Your task to perform on an android device: check out phone information Image 0: 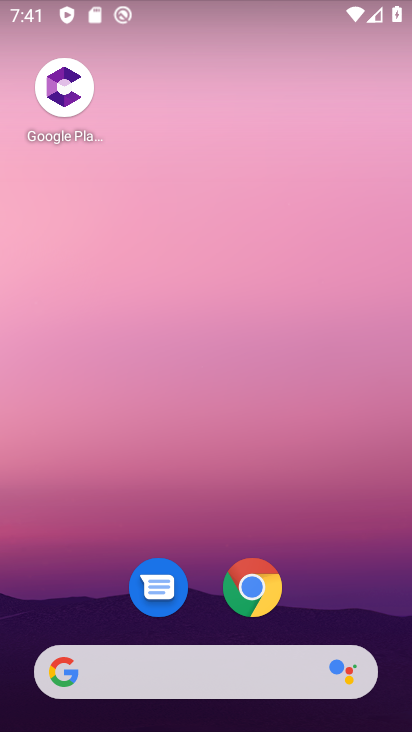
Step 0: drag from (400, 587) to (379, 111)
Your task to perform on an android device: check out phone information Image 1: 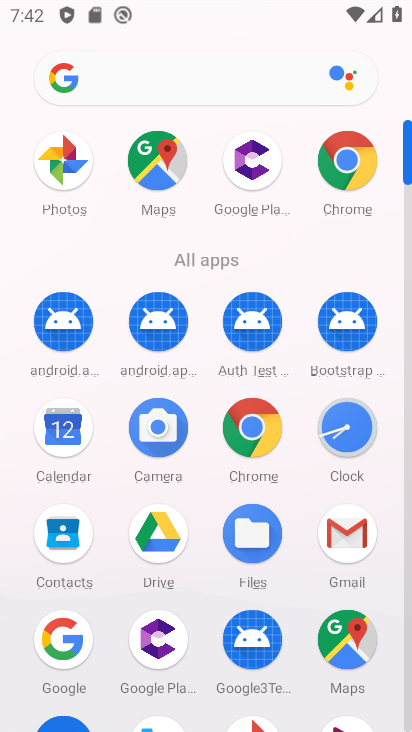
Step 1: drag from (184, 610) to (236, 209)
Your task to perform on an android device: check out phone information Image 2: 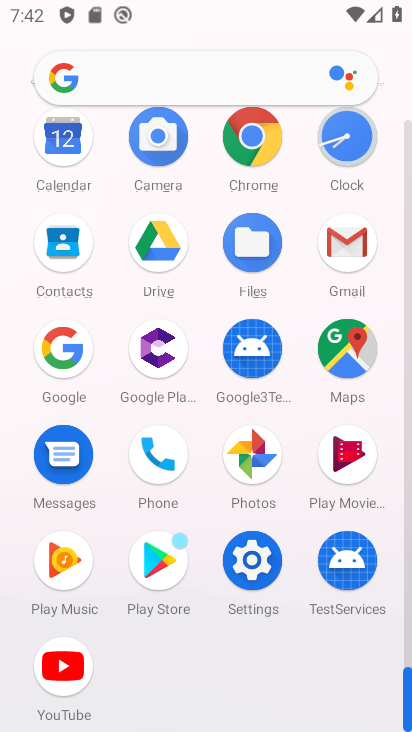
Step 2: click (249, 574)
Your task to perform on an android device: check out phone information Image 3: 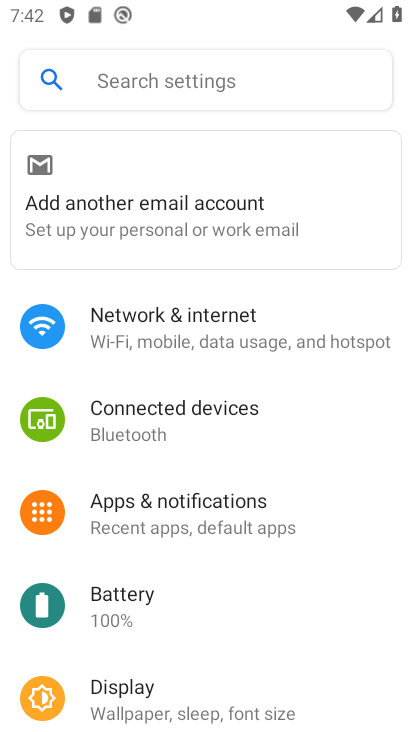
Step 3: drag from (207, 636) to (264, 418)
Your task to perform on an android device: check out phone information Image 4: 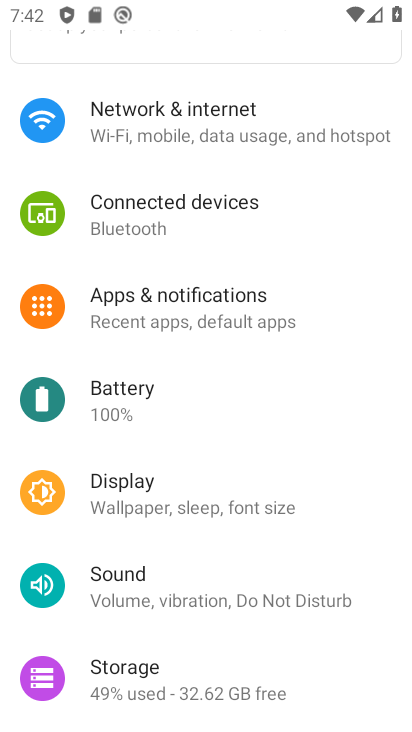
Step 4: drag from (203, 673) to (305, 183)
Your task to perform on an android device: check out phone information Image 5: 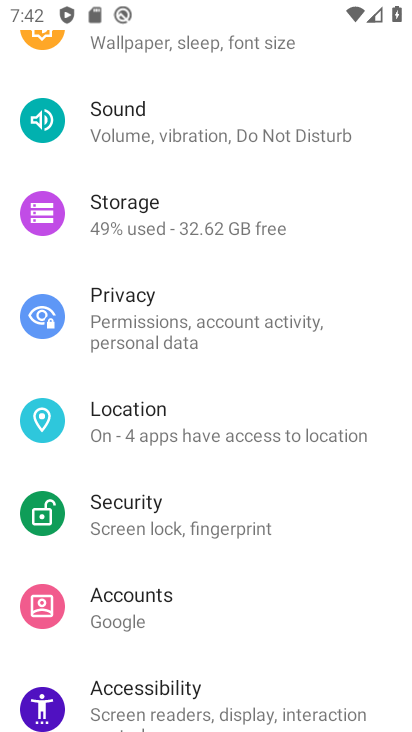
Step 5: drag from (246, 622) to (285, 116)
Your task to perform on an android device: check out phone information Image 6: 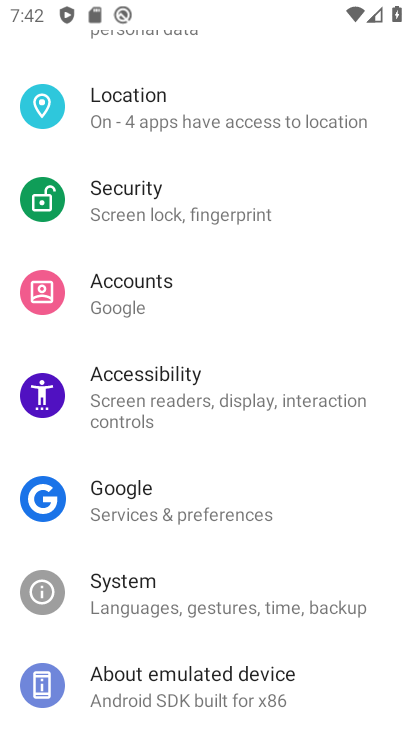
Step 6: click (143, 688)
Your task to perform on an android device: check out phone information Image 7: 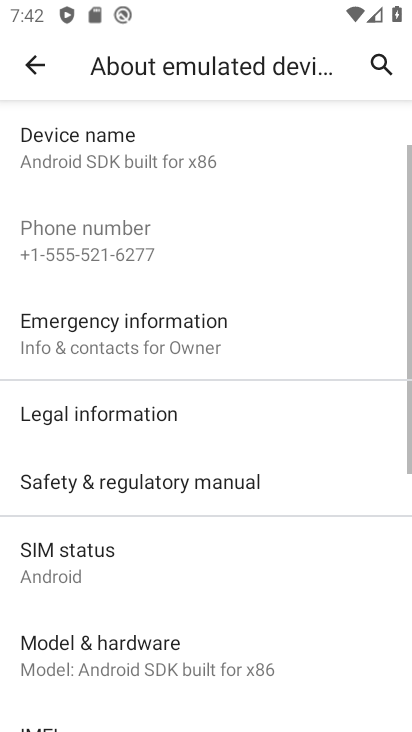
Step 7: task complete